Your task to perform on an android device: see sites visited before in the chrome app Image 0: 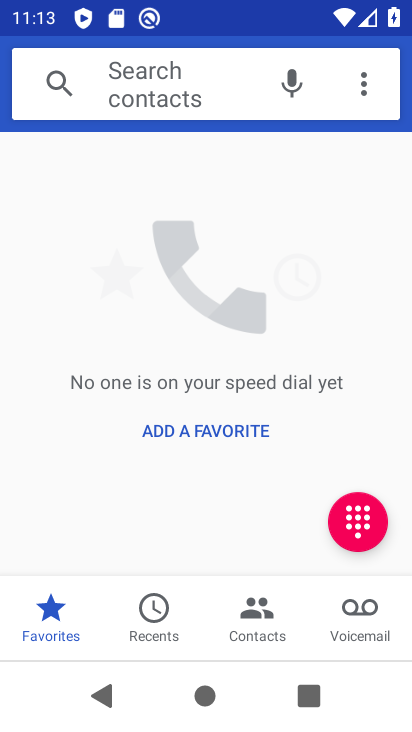
Step 0: press home button
Your task to perform on an android device: see sites visited before in the chrome app Image 1: 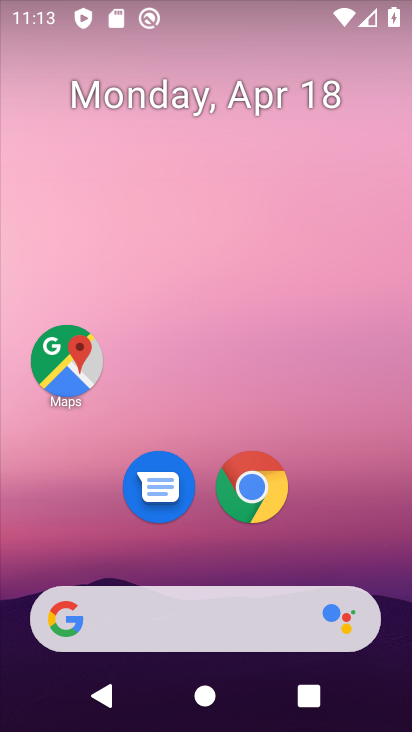
Step 1: click (250, 493)
Your task to perform on an android device: see sites visited before in the chrome app Image 2: 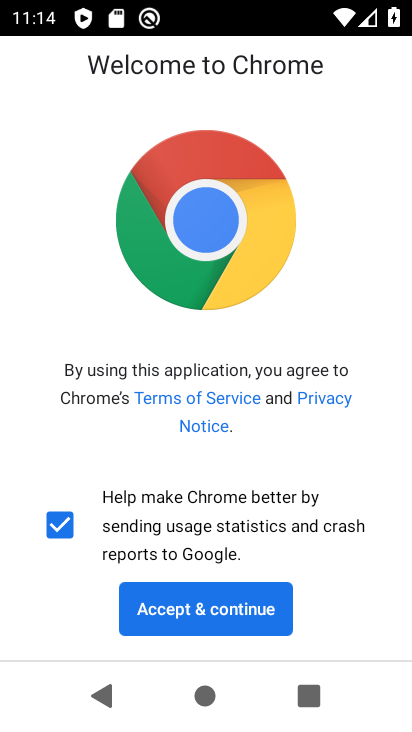
Step 2: click (196, 605)
Your task to perform on an android device: see sites visited before in the chrome app Image 3: 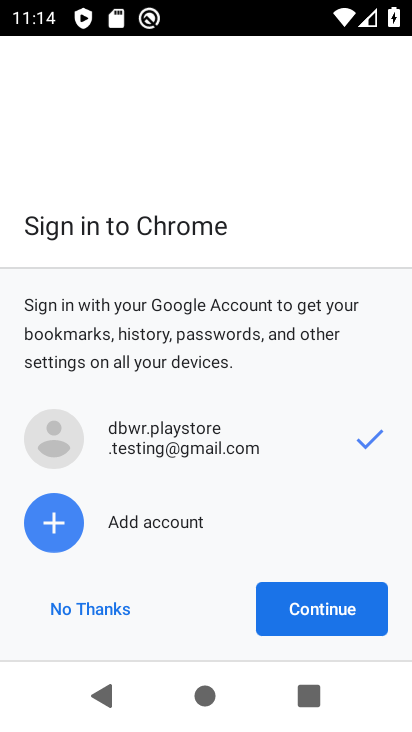
Step 3: click (279, 609)
Your task to perform on an android device: see sites visited before in the chrome app Image 4: 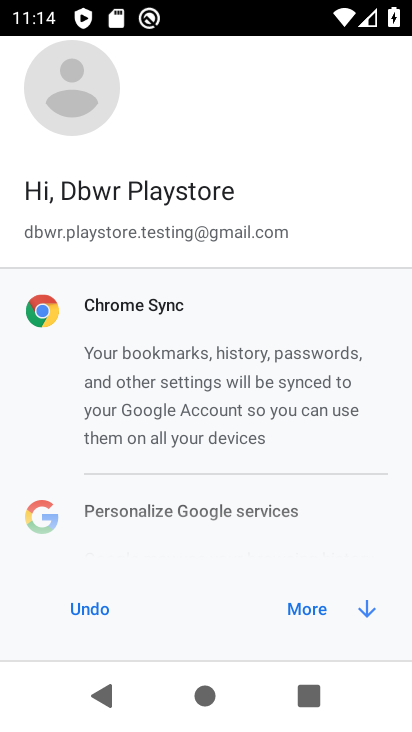
Step 4: click (329, 610)
Your task to perform on an android device: see sites visited before in the chrome app Image 5: 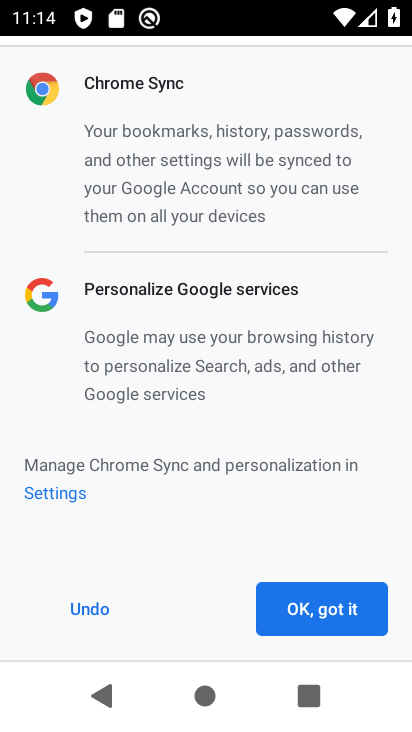
Step 5: click (362, 613)
Your task to perform on an android device: see sites visited before in the chrome app Image 6: 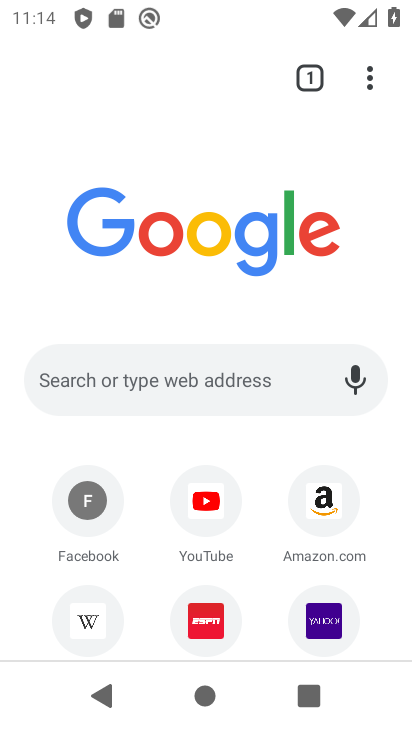
Step 6: click (367, 80)
Your task to perform on an android device: see sites visited before in the chrome app Image 7: 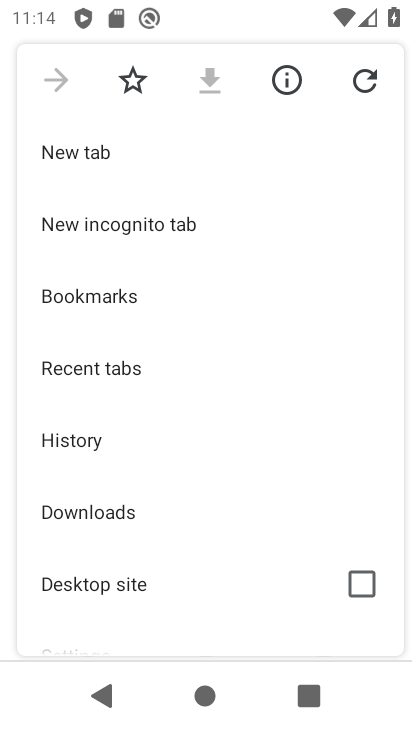
Step 7: click (70, 441)
Your task to perform on an android device: see sites visited before in the chrome app Image 8: 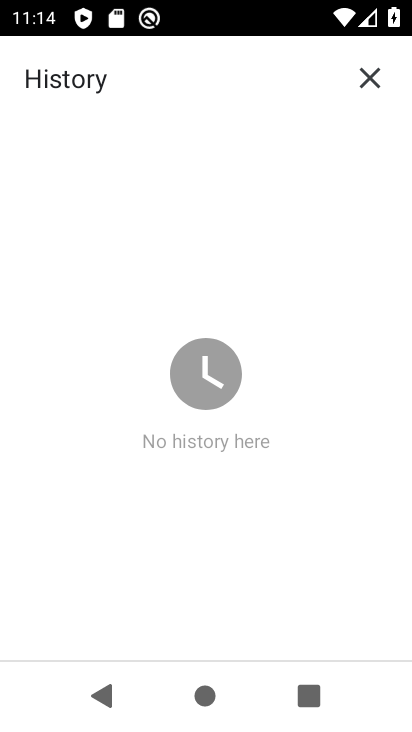
Step 8: task complete